Your task to perform on an android device: change text size in settings app Image 0: 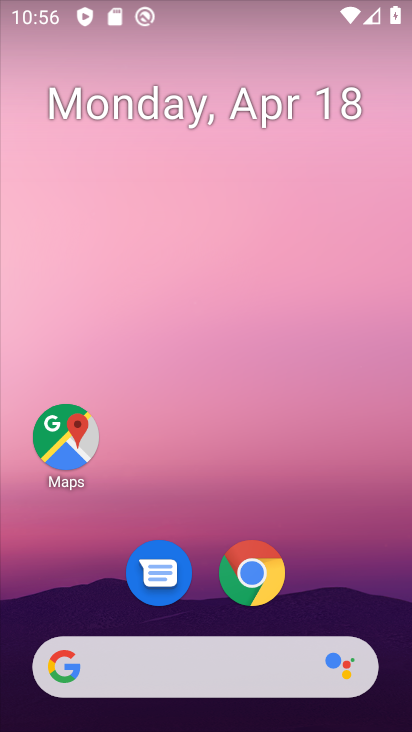
Step 0: drag from (342, 605) to (358, 82)
Your task to perform on an android device: change text size in settings app Image 1: 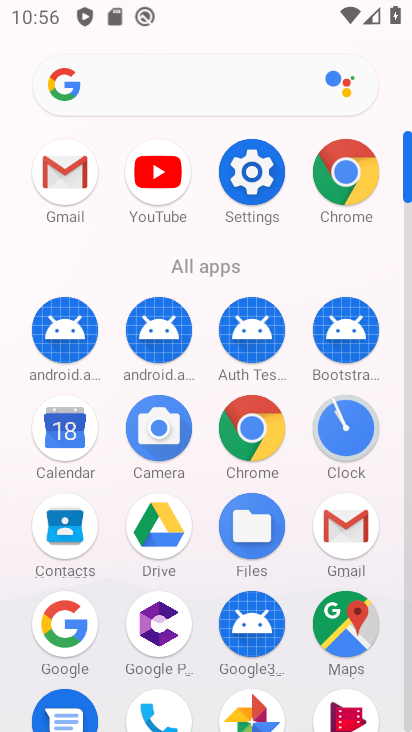
Step 1: click (244, 179)
Your task to perform on an android device: change text size in settings app Image 2: 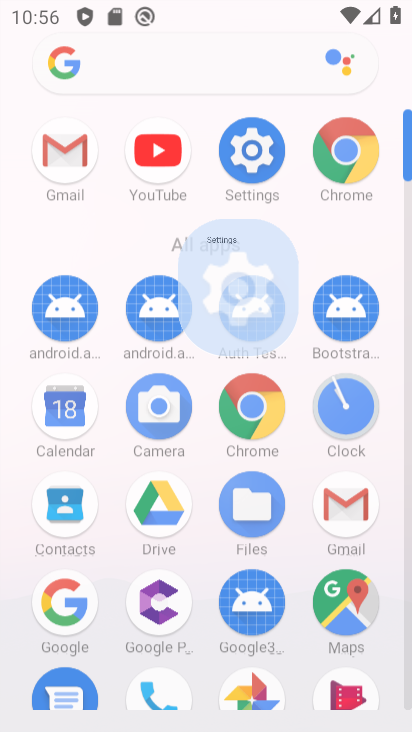
Step 2: click (244, 175)
Your task to perform on an android device: change text size in settings app Image 3: 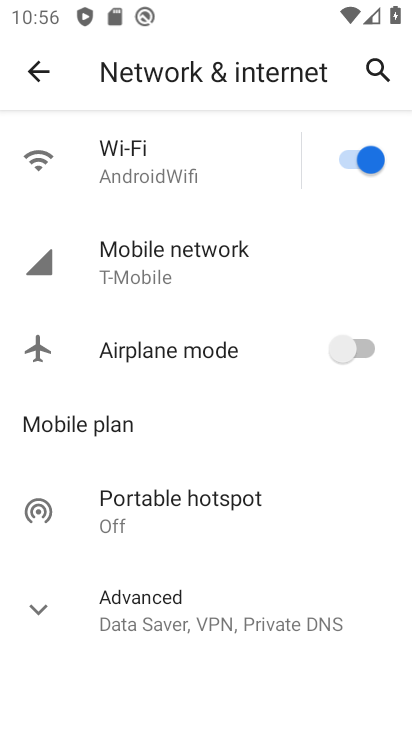
Step 3: click (45, 80)
Your task to perform on an android device: change text size in settings app Image 4: 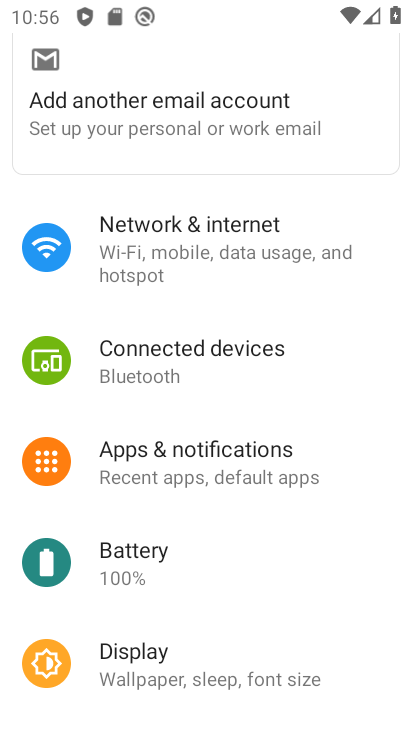
Step 4: drag from (313, 601) to (336, 317)
Your task to perform on an android device: change text size in settings app Image 5: 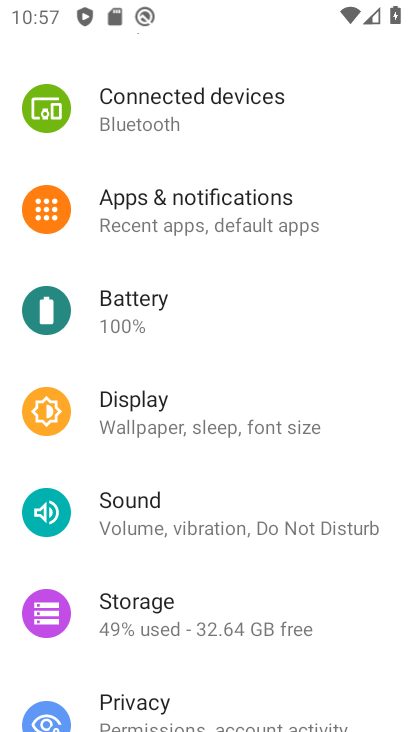
Step 5: click (210, 419)
Your task to perform on an android device: change text size in settings app Image 6: 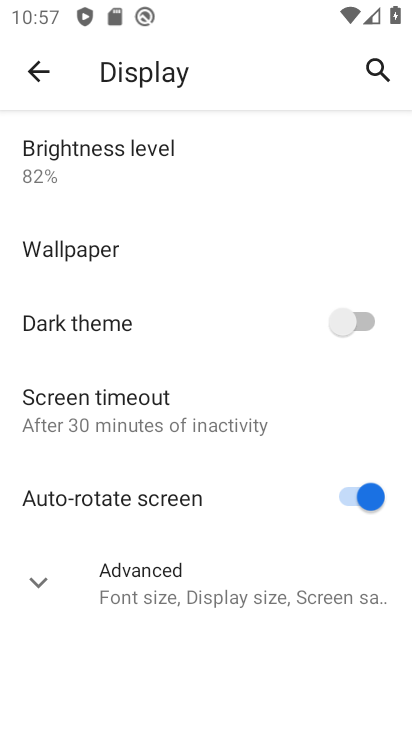
Step 6: click (199, 597)
Your task to perform on an android device: change text size in settings app Image 7: 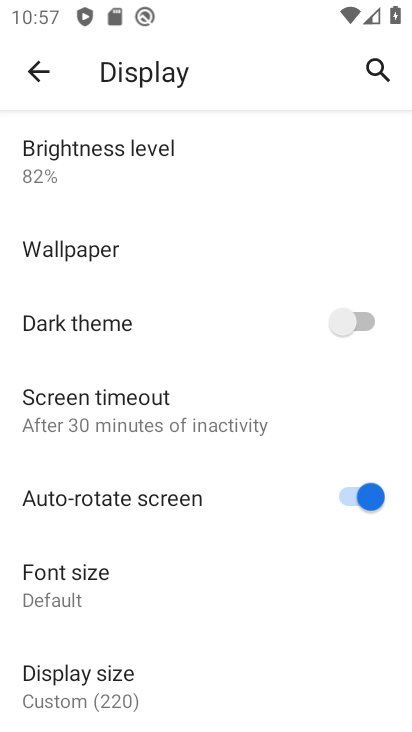
Step 7: click (66, 580)
Your task to perform on an android device: change text size in settings app Image 8: 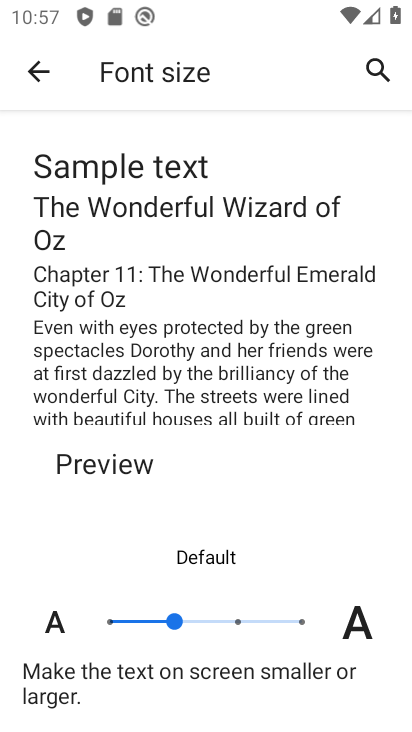
Step 8: click (234, 617)
Your task to perform on an android device: change text size in settings app Image 9: 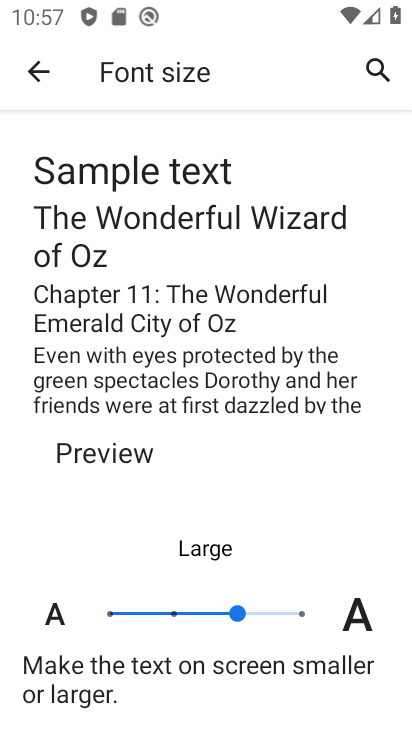
Step 9: task complete